Your task to perform on an android device: Check the news Image 0: 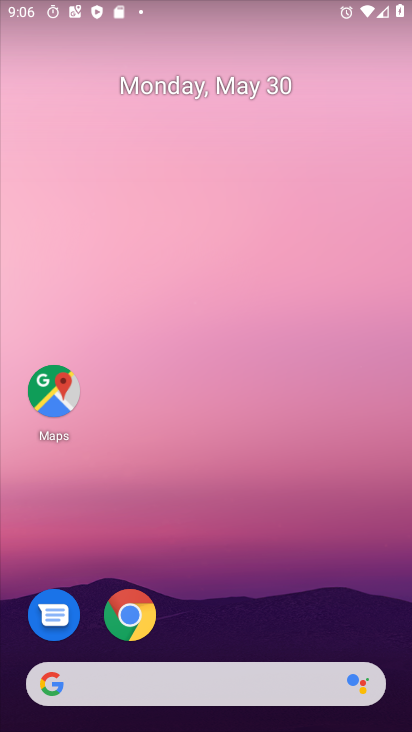
Step 0: drag from (238, 568) to (257, 44)
Your task to perform on an android device: Check the news Image 1: 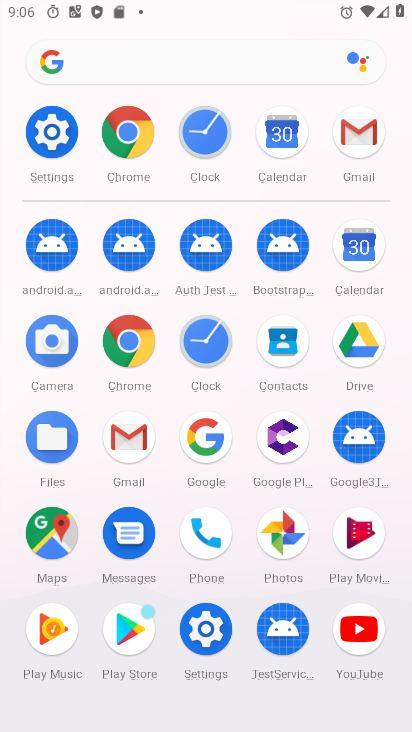
Step 1: click (124, 130)
Your task to perform on an android device: Check the news Image 2: 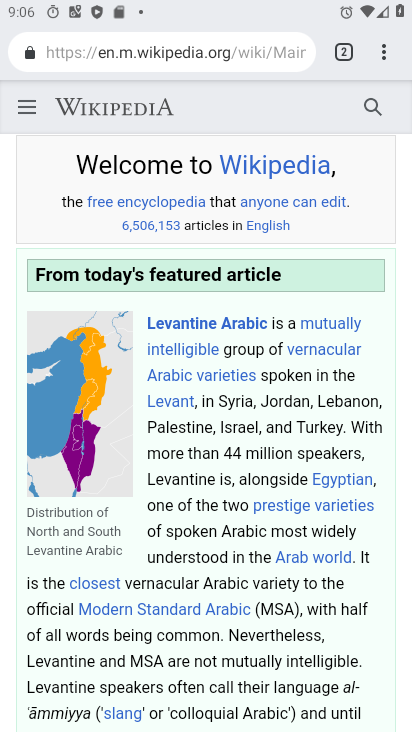
Step 2: drag from (382, 49) to (203, 107)
Your task to perform on an android device: Check the news Image 3: 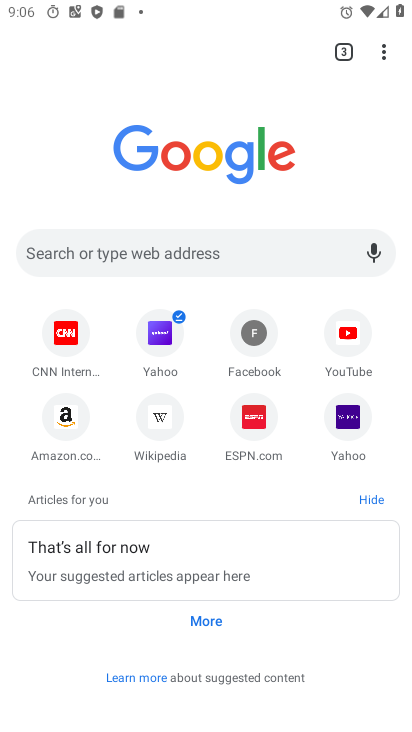
Step 3: drag from (272, 649) to (232, 361)
Your task to perform on an android device: Check the news Image 4: 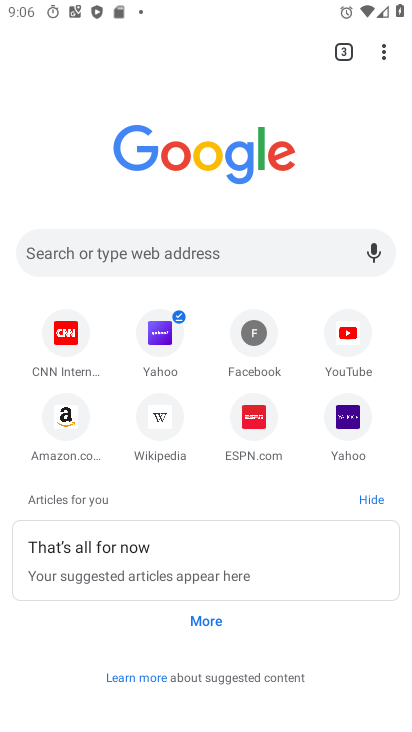
Step 4: click (189, 614)
Your task to perform on an android device: Check the news Image 5: 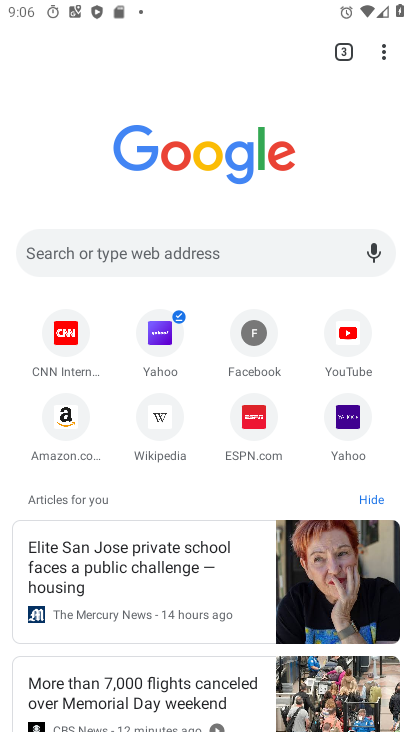
Step 5: task complete